Your task to perform on an android device: turn on bluetooth scan Image 0: 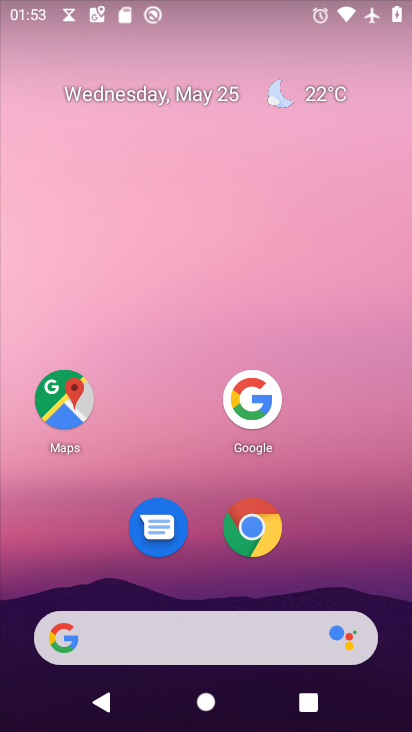
Step 0: drag from (177, 634) to (263, 182)
Your task to perform on an android device: turn on bluetooth scan Image 1: 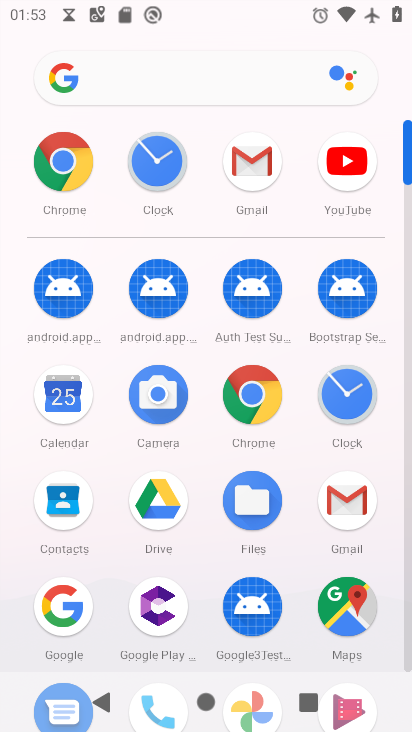
Step 1: drag from (116, 663) to (271, 224)
Your task to perform on an android device: turn on bluetooth scan Image 2: 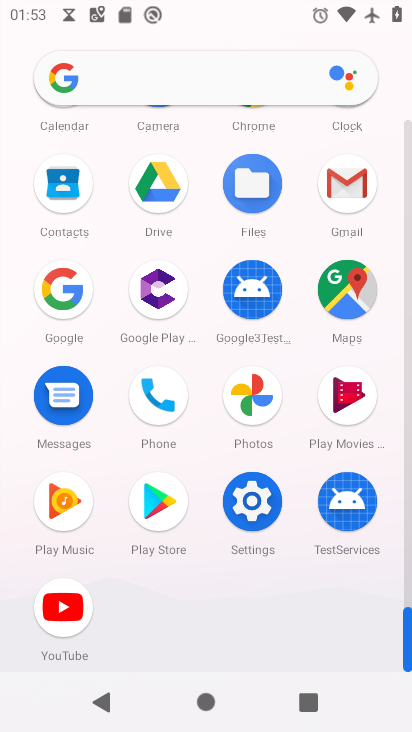
Step 2: click (259, 509)
Your task to perform on an android device: turn on bluetooth scan Image 3: 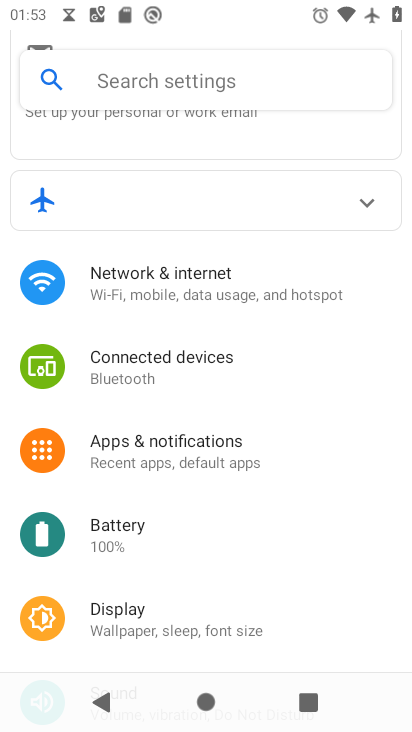
Step 3: drag from (204, 568) to (251, 436)
Your task to perform on an android device: turn on bluetooth scan Image 4: 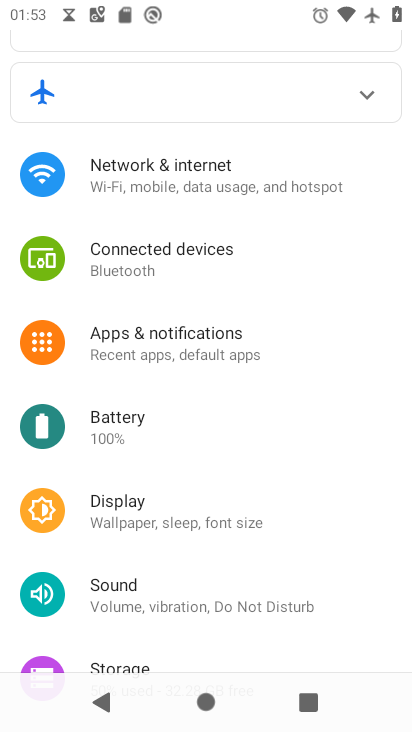
Step 4: drag from (237, 596) to (323, 380)
Your task to perform on an android device: turn on bluetooth scan Image 5: 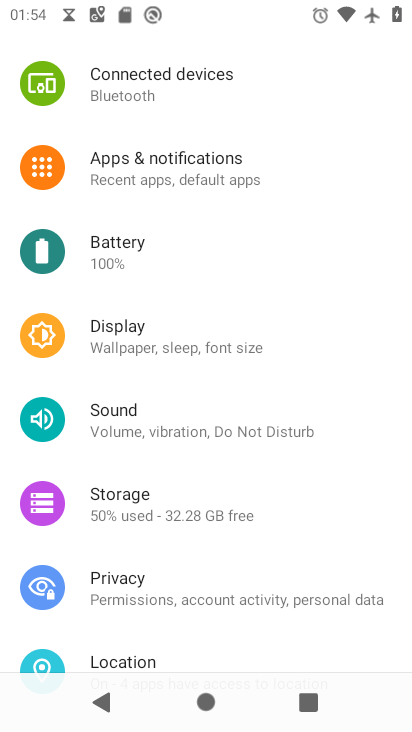
Step 5: drag from (199, 589) to (290, 304)
Your task to perform on an android device: turn on bluetooth scan Image 6: 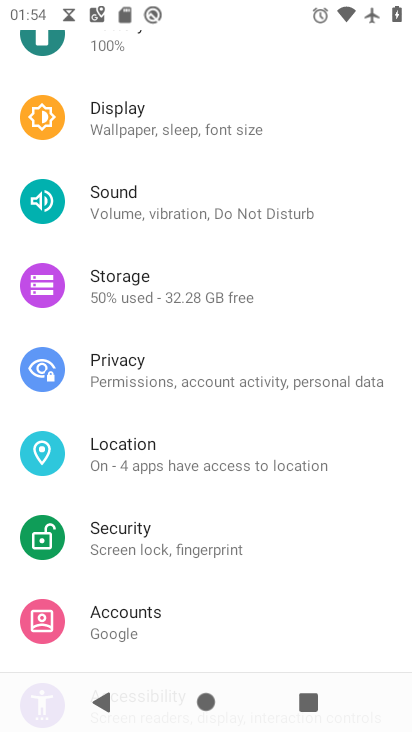
Step 6: click (133, 456)
Your task to perform on an android device: turn on bluetooth scan Image 7: 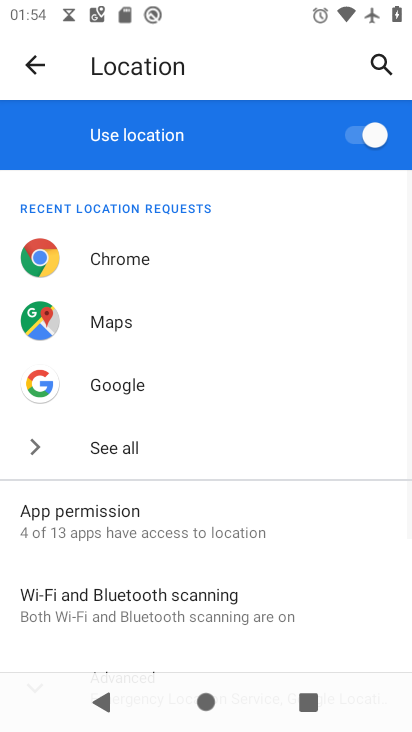
Step 7: drag from (237, 556) to (338, 378)
Your task to perform on an android device: turn on bluetooth scan Image 8: 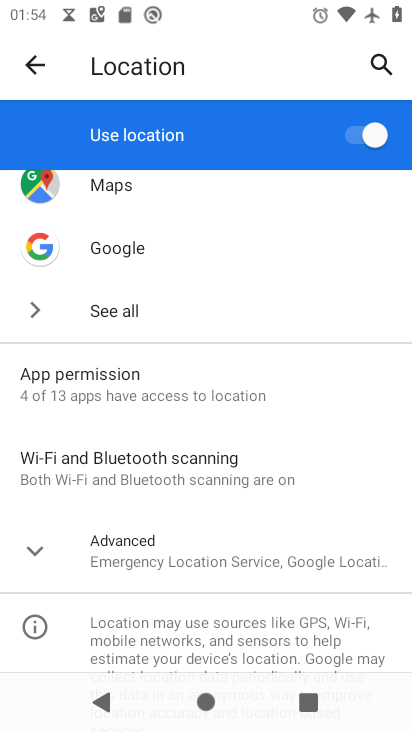
Step 8: click (221, 469)
Your task to perform on an android device: turn on bluetooth scan Image 9: 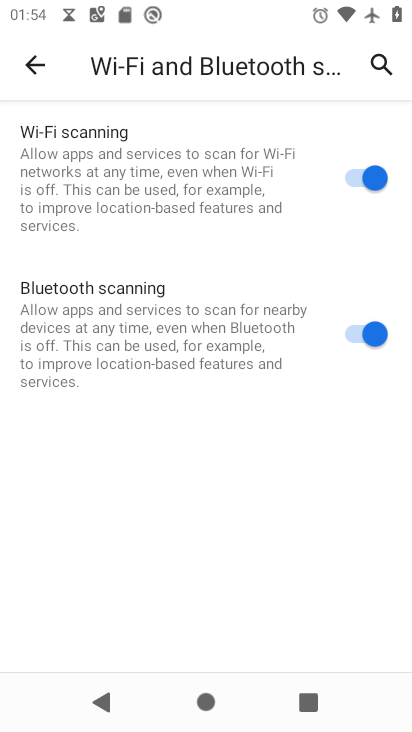
Step 9: task complete